Your task to perform on an android device: Clear all items from cart on costco.com. Image 0: 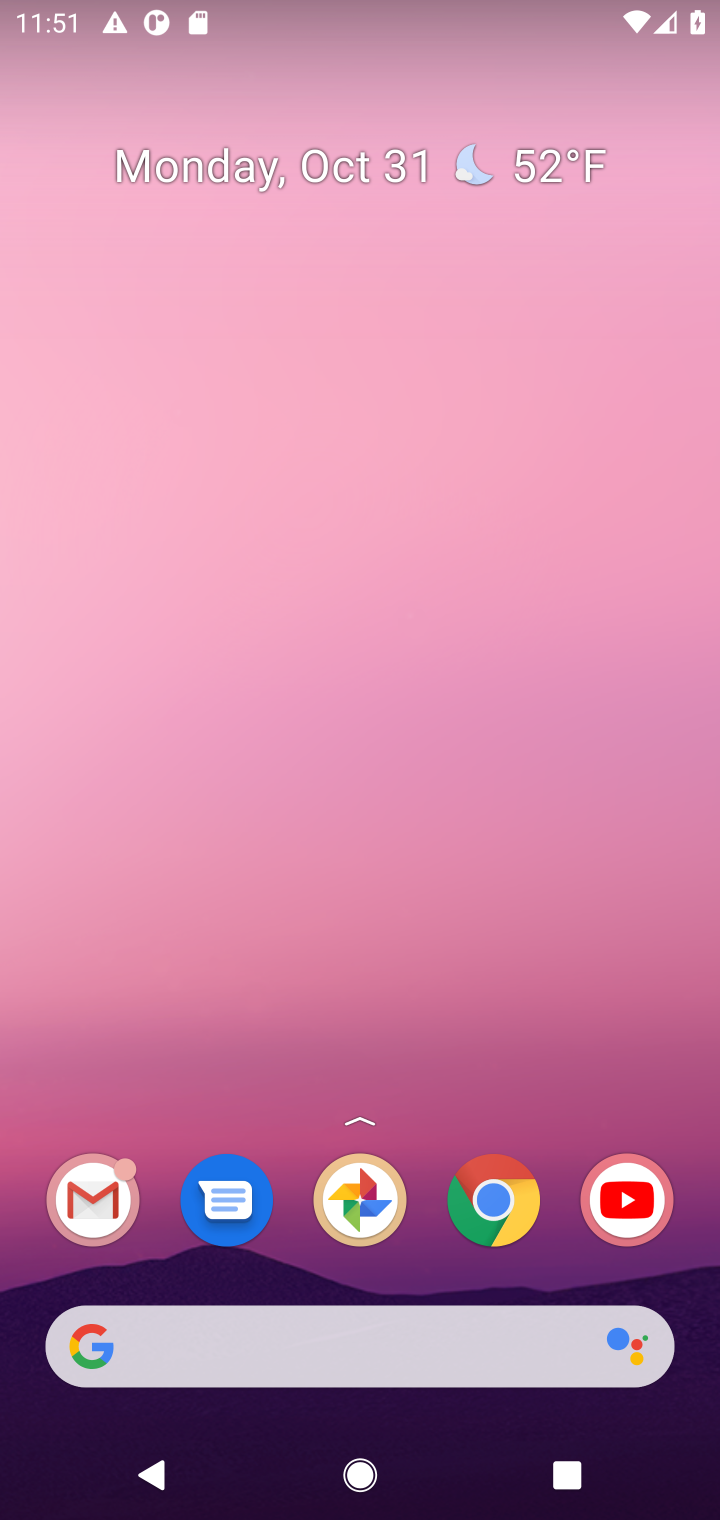
Step 0: click (519, 1201)
Your task to perform on an android device: Clear all items from cart on costco.com. Image 1: 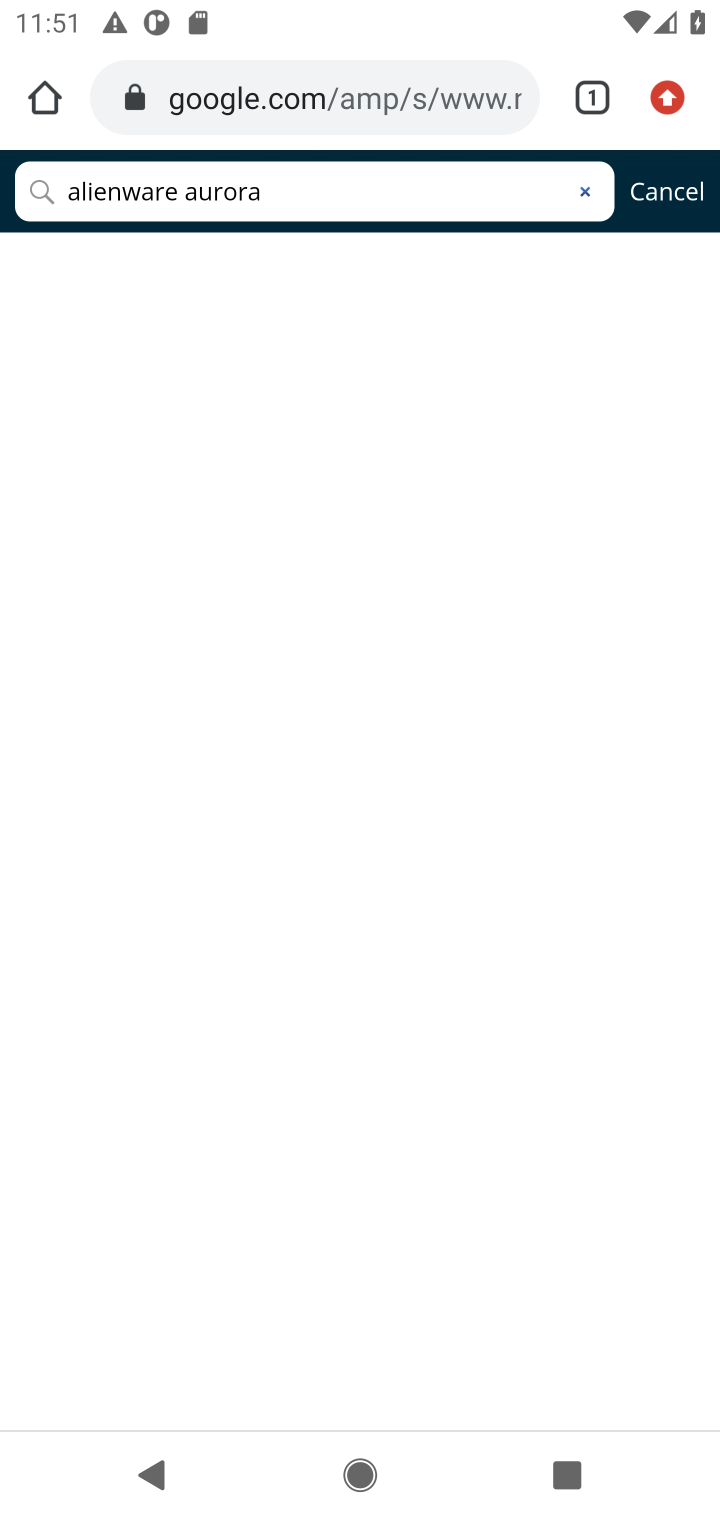
Step 1: click (322, 122)
Your task to perform on an android device: Clear all items from cart on costco.com. Image 2: 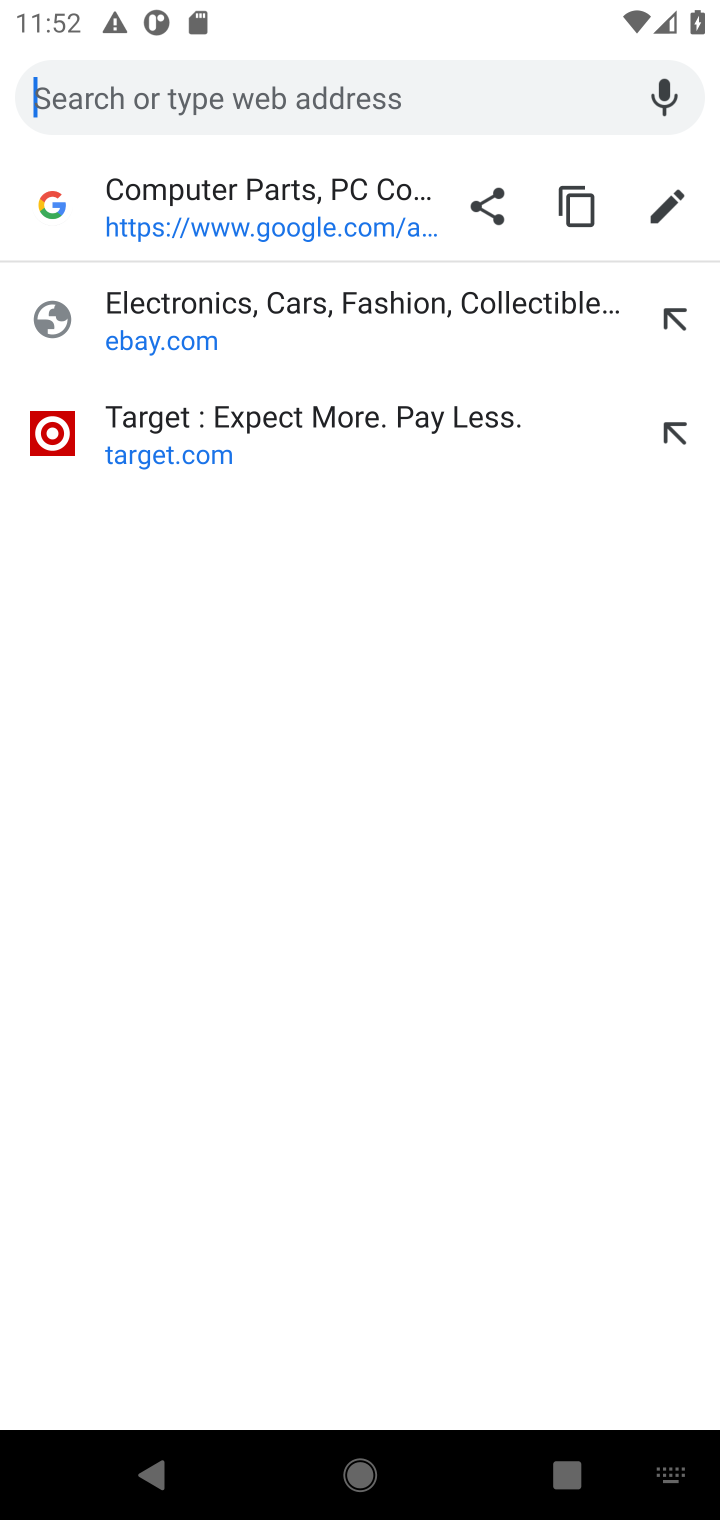
Step 2: type "costco.com."
Your task to perform on an android device: Clear all items from cart on costco.com. Image 3: 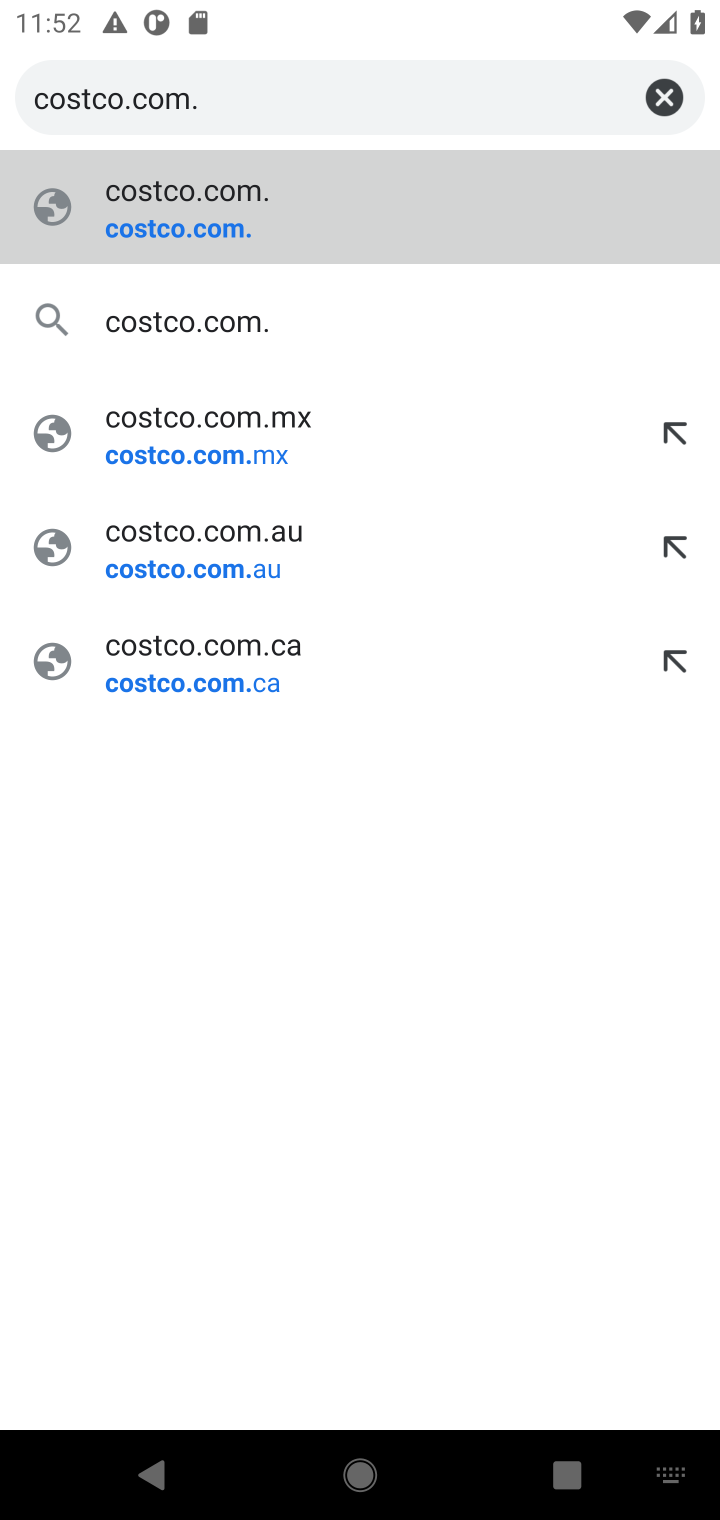
Step 3: click (214, 238)
Your task to perform on an android device: Clear all items from cart on costco.com. Image 4: 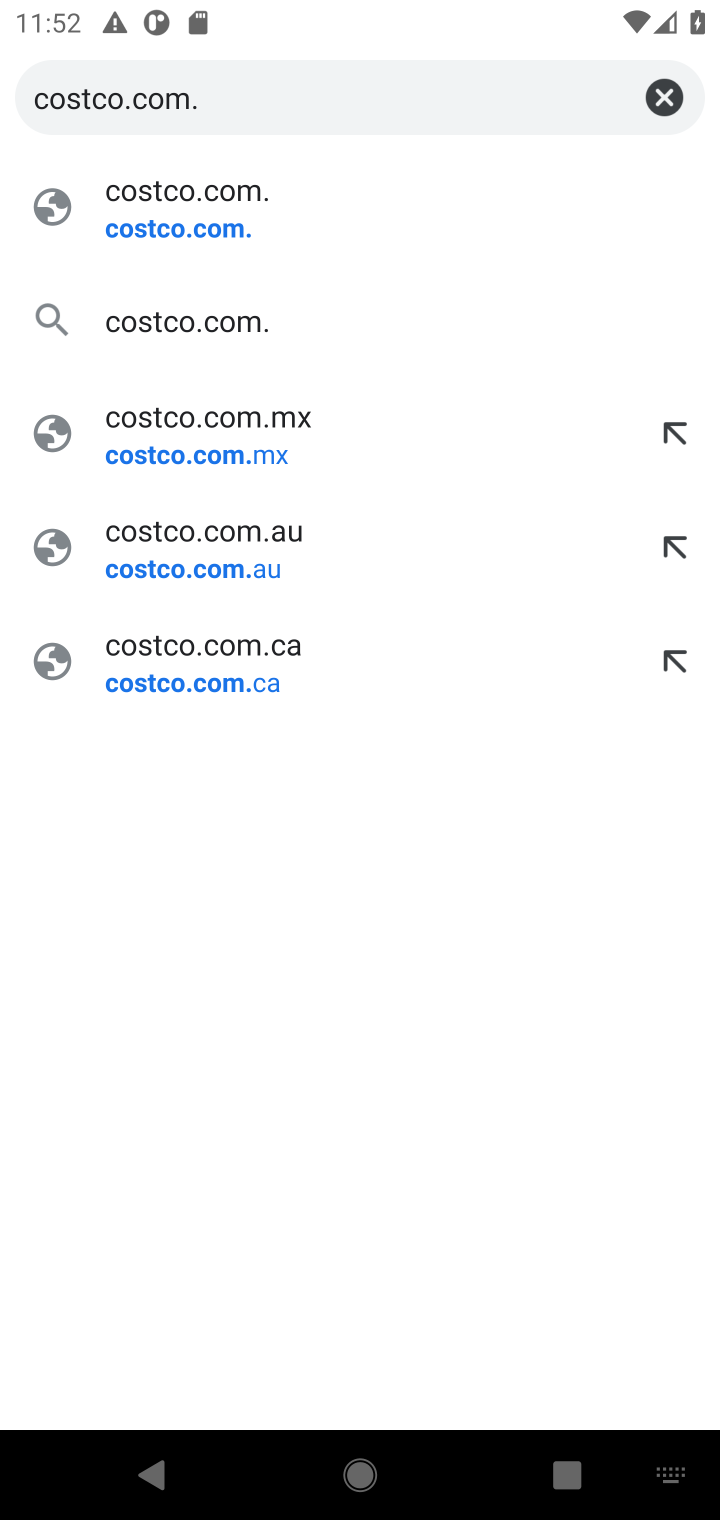
Step 4: click (181, 229)
Your task to perform on an android device: Clear all items from cart on costco.com. Image 5: 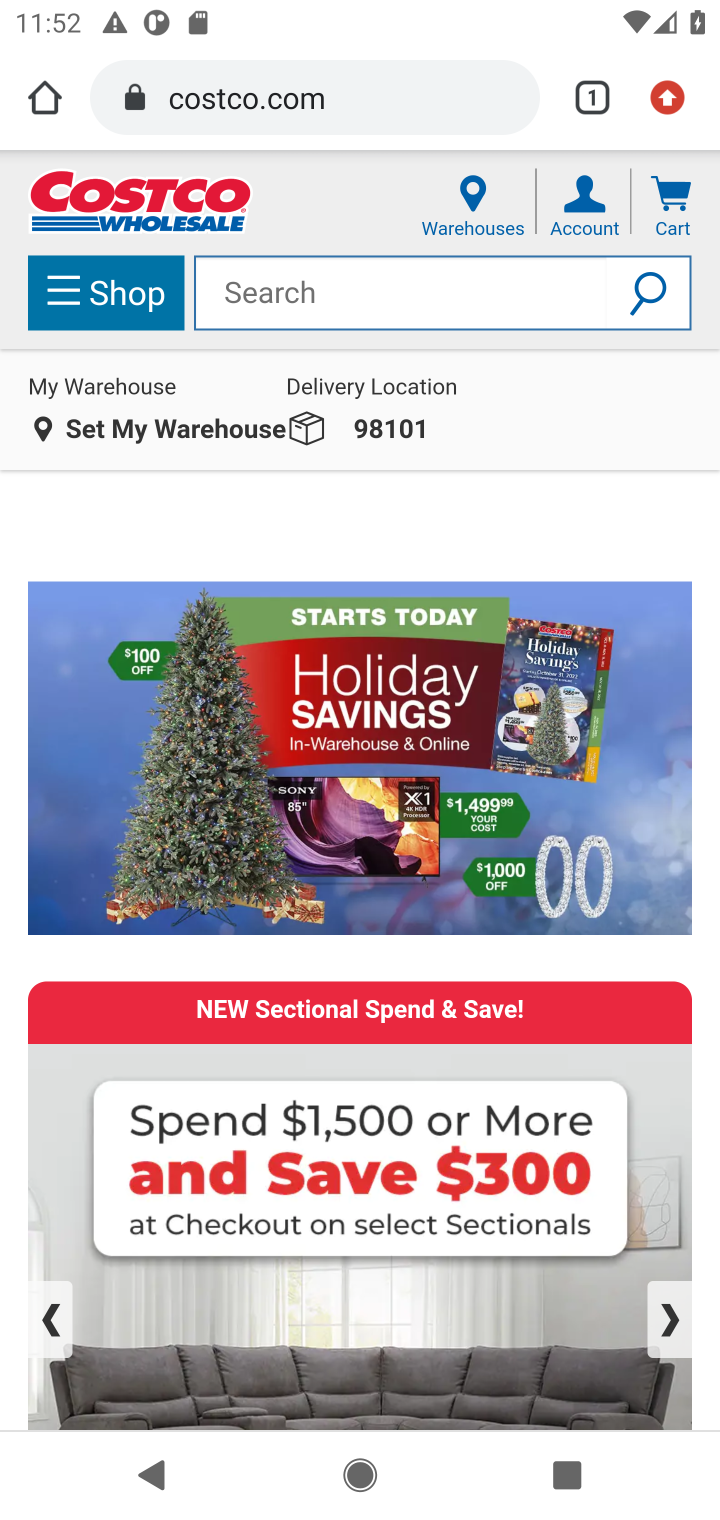
Step 5: click (658, 204)
Your task to perform on an android device: Clear all items from cart on costco.com. Image 6: 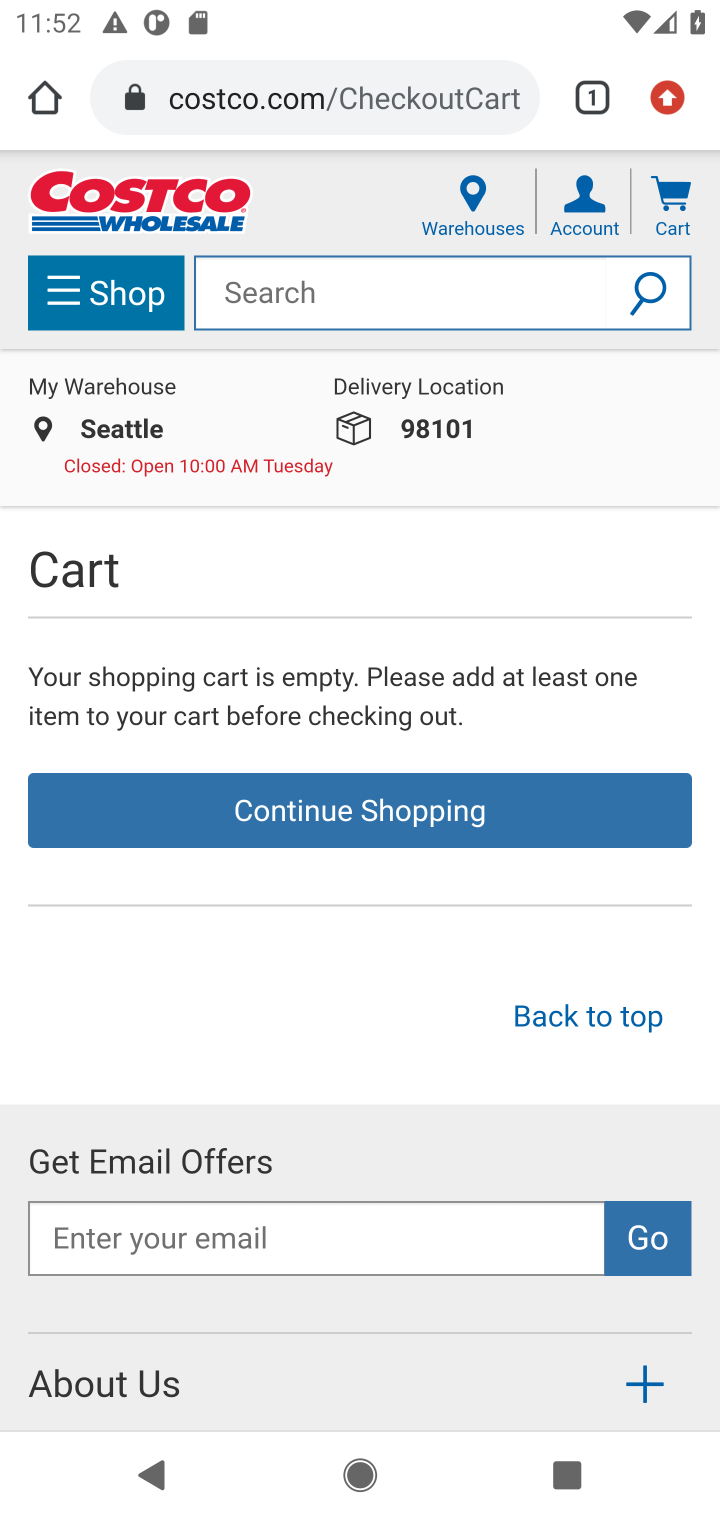
Step 6: task complete